Your task to perform on an android device: What is the news today? Image 0: 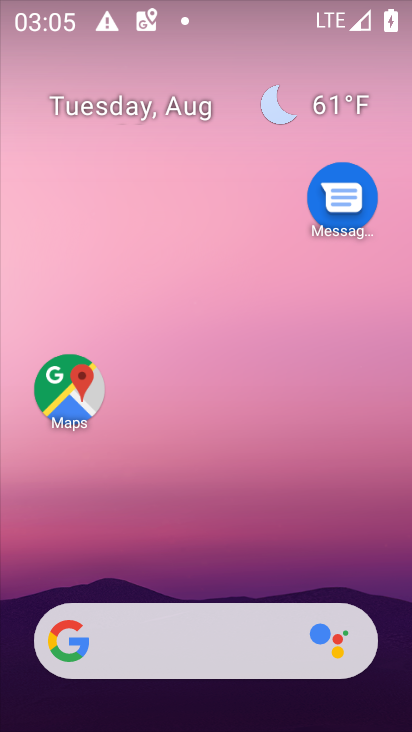
Step 0: click (226, 628)
Your task to perform on an android device: What is the news today? Image 1: 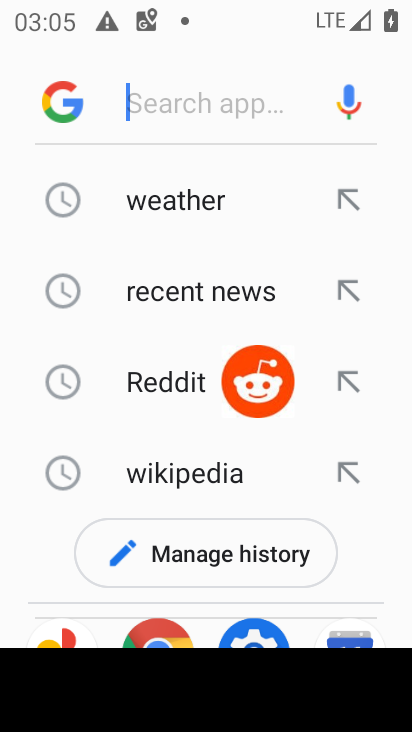
Step 1: click (188, 185)
Your task to perform on an android device: What is the news today? Image 2: 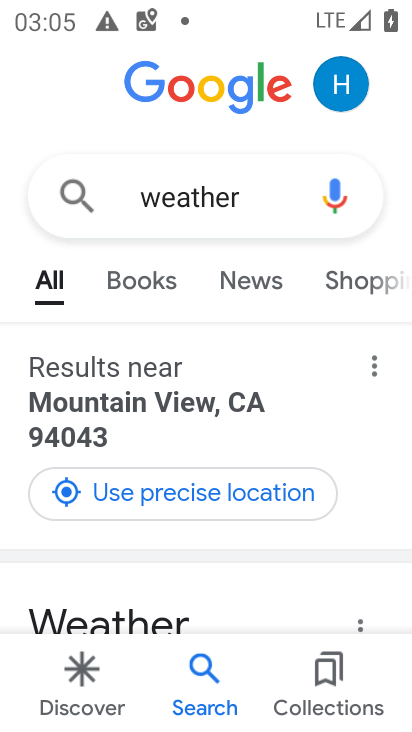
Step 2: task complete